Your task to perform on an android device: manage bookmarks in the chrome app Image 0: 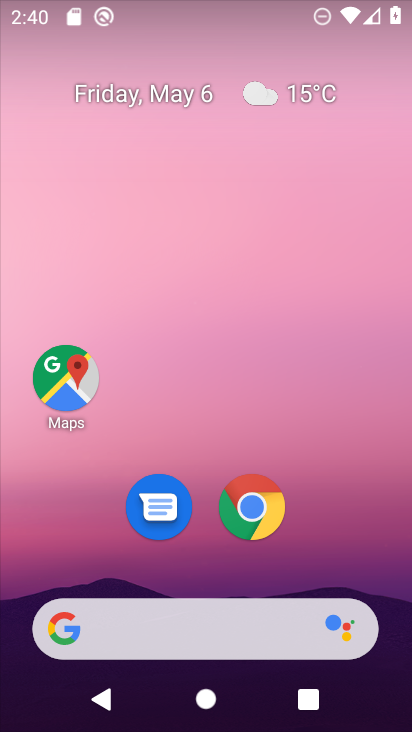
Step 0: drag from (373, 574) to (368, 206)
Your task to perform on an android device: manage bookmarks in the chrome app Image 1: 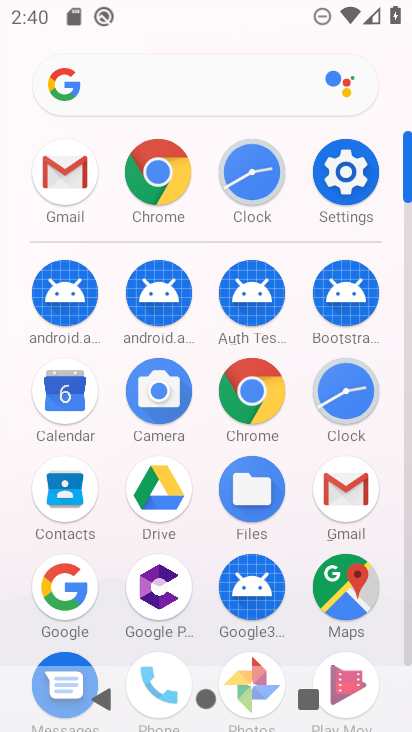
Step 1: click (231, 392)
Your task to perform on an android device: manage bookmarks in the chrome app Image 2: 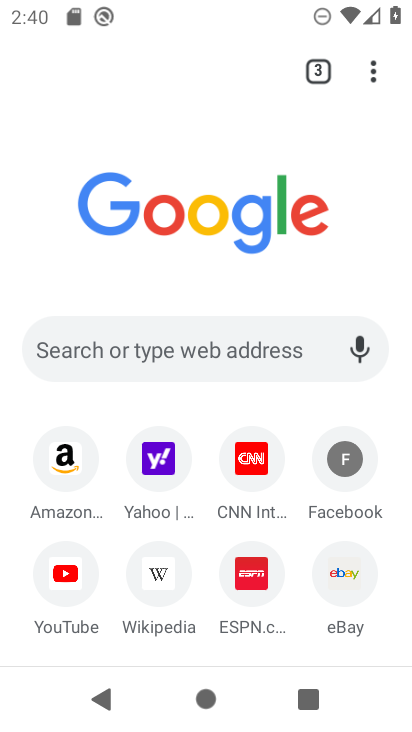
Step 2: task complete